Your task to perform on an android device: Check the news Image 0: 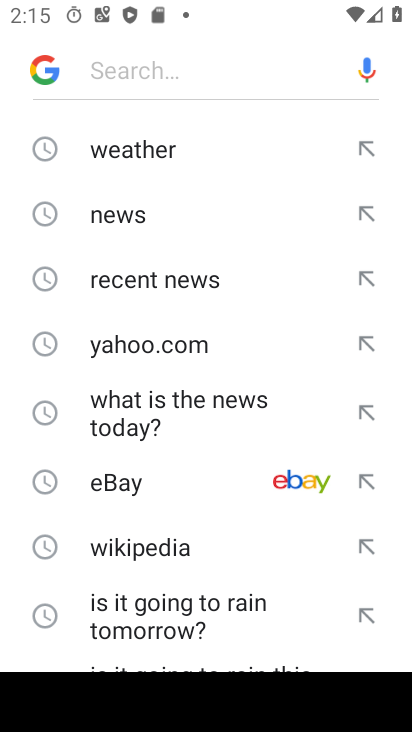
Step 0: click (130, 220)
Your task to perform on an android device: Check the news Image 1: 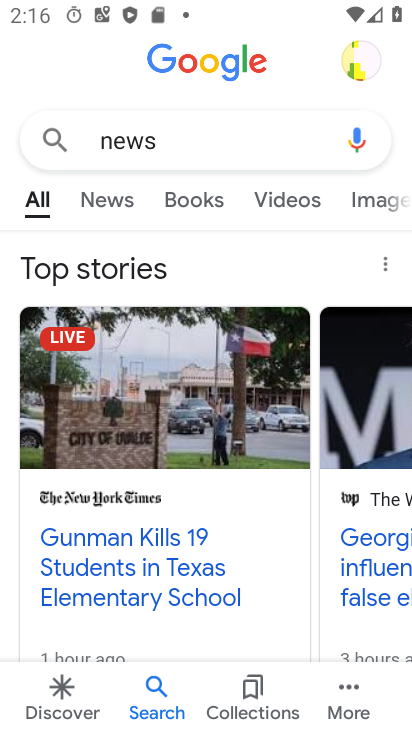
Step 1: task complete